Your task to perform on an android device: Go to Maps Image 0: 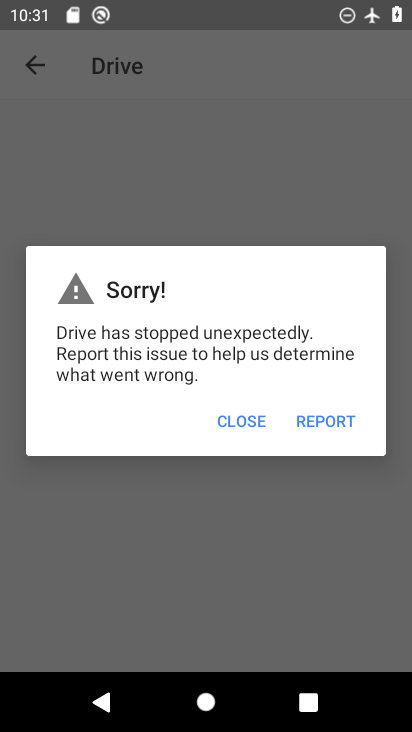
Step 0: click (222, 424)
Your task to perform on an android device: Go to Maps Image 1: 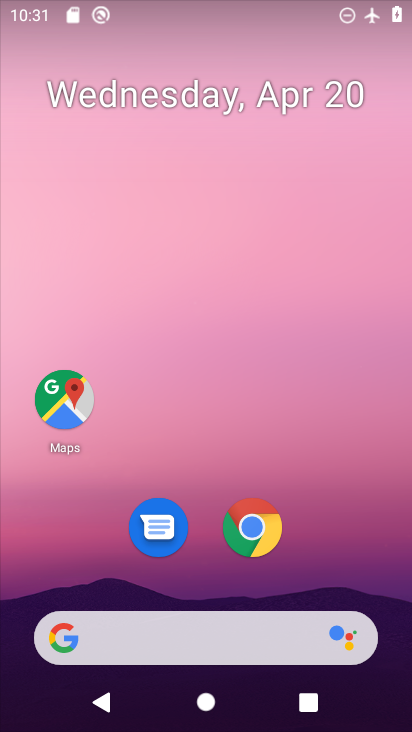
Step 1: press home button
Your task to perform on an android device: Go to Maps Image 2: 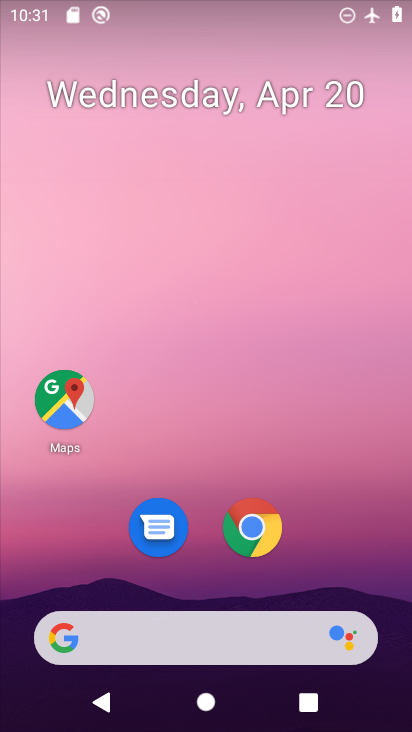
Step 2: drag from (189, 569) to (249, 17)
Your task to perform on an android device: Go to Maps Image 3: 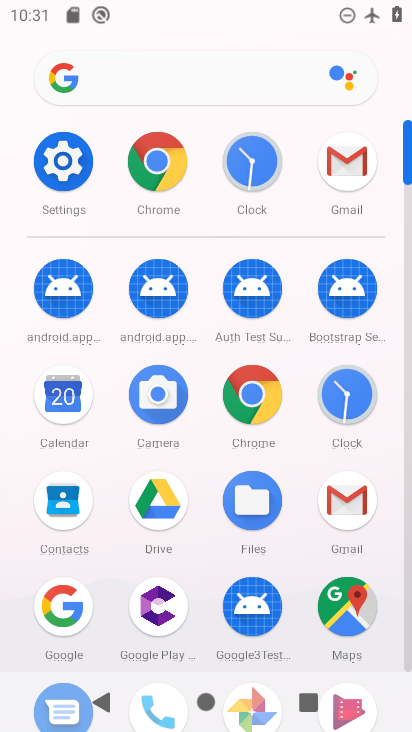
Step 3: click (343, 603)
Your task to perform on an android device: Go to Maps Image 4: 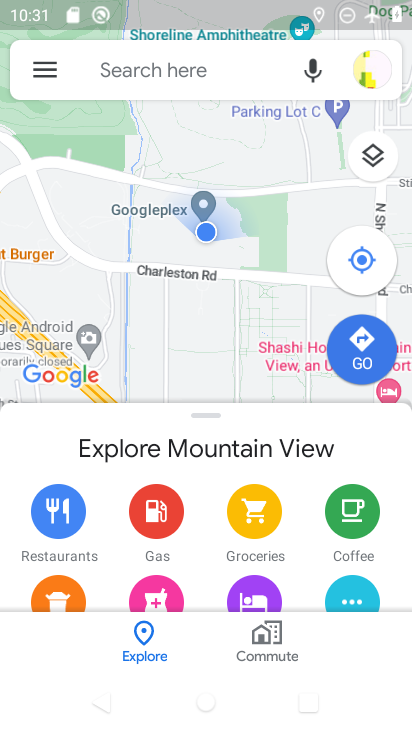
Step 4: task complete